Your task to perform on an android device: Clear the shopping cart on ebay.com. Image 0: 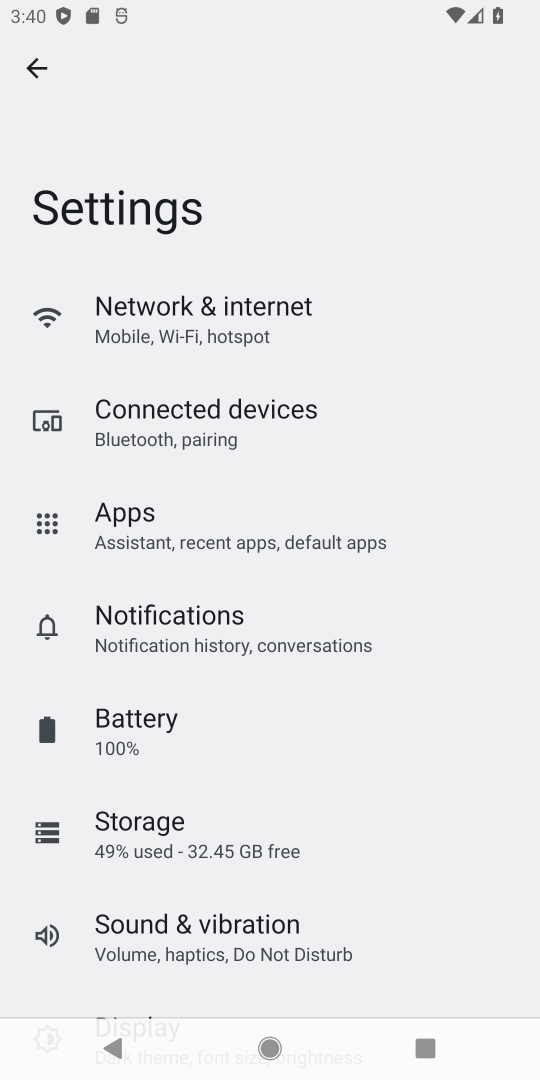
Step 0: press home button
Your task to perform on an android device: Clear the shopping cart on ebay.com. Image 1: 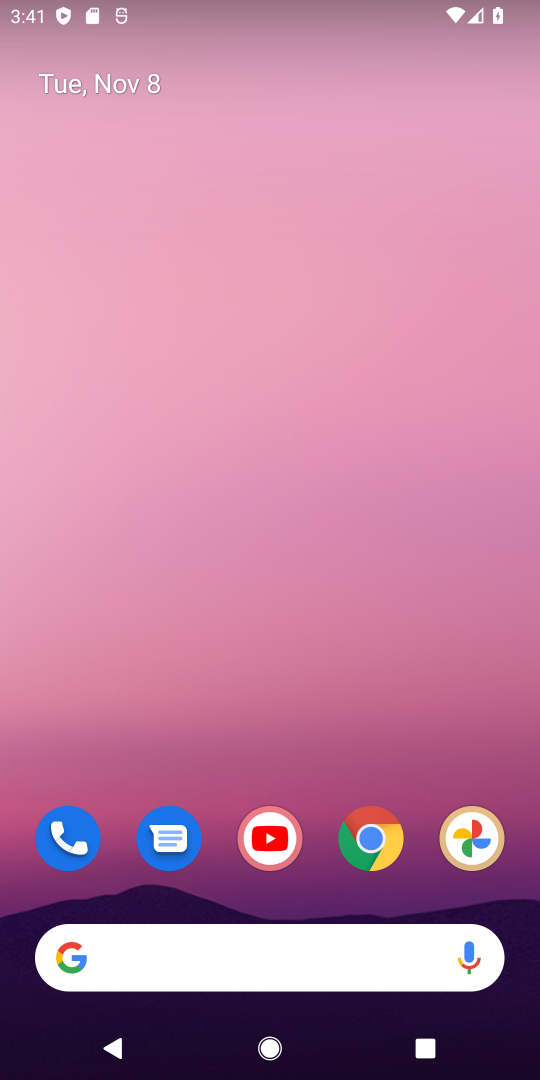
Step 1: drag from (341, 1034) to (331, 77)
Your task to perform on an android device: Clear the shopping cart on ebay.com. Image 2: 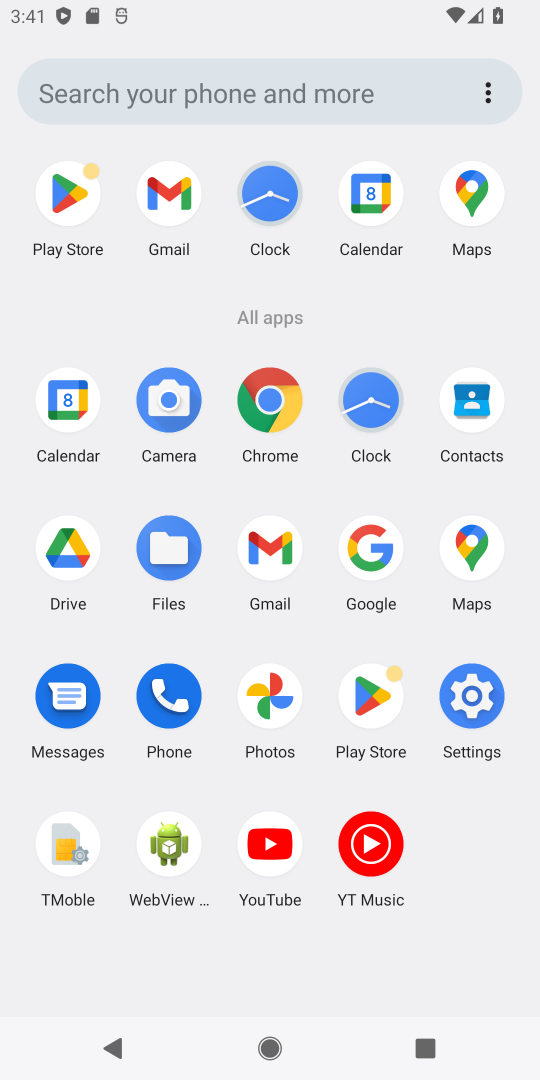
Step 2: click (269, 392)
Your task to perform on an android device: Clear the shopping cart on ebay.com. Image 3: 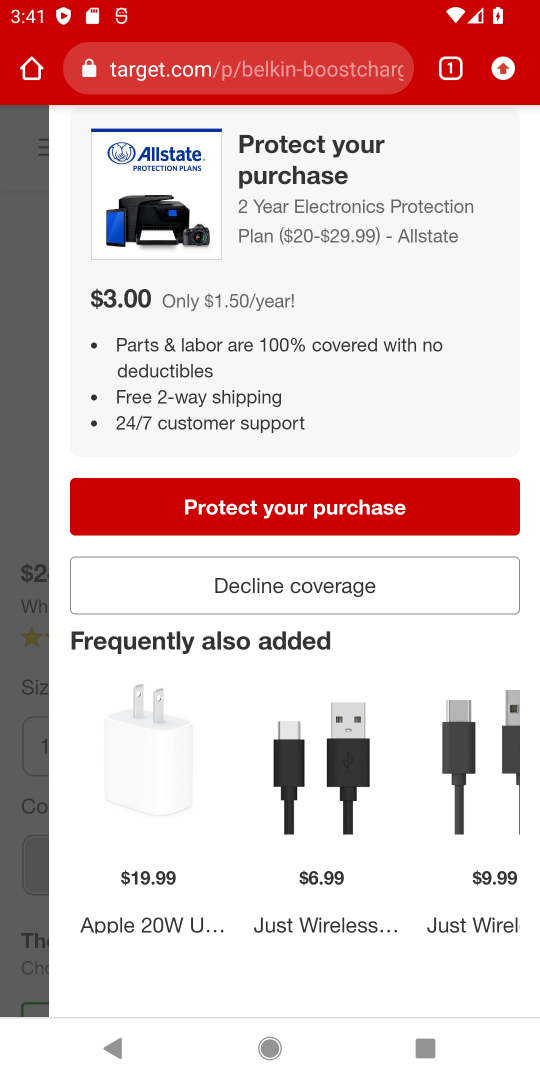
Step 3: click (32, 168)
Your task to perform on an android device: Clear the shopping cart on ebay.com. Image 4: 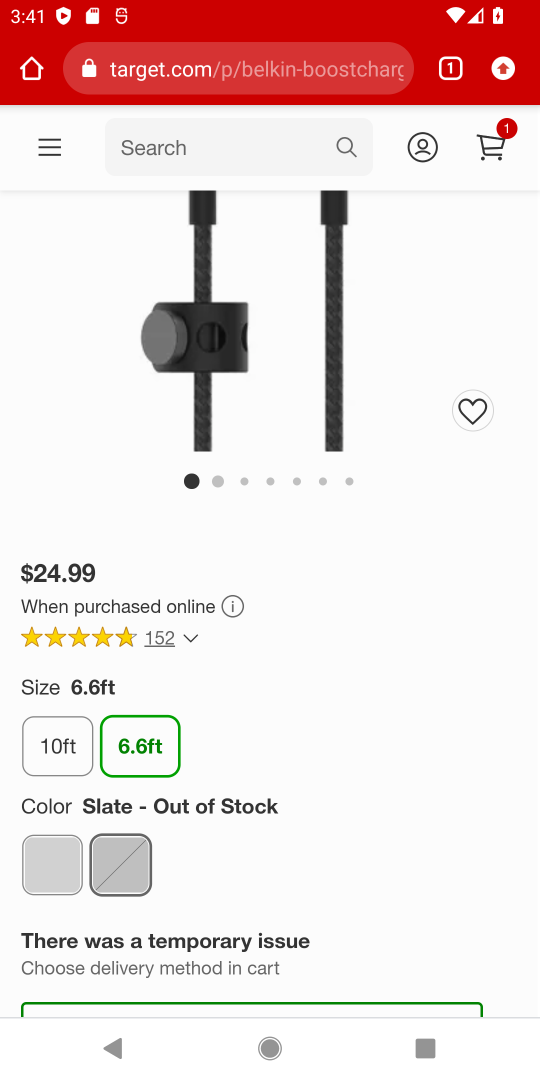
Step 4: click (182, 73)
Your task to perform on an android device: Clear the shopping cart on ebay.com. Image 5: 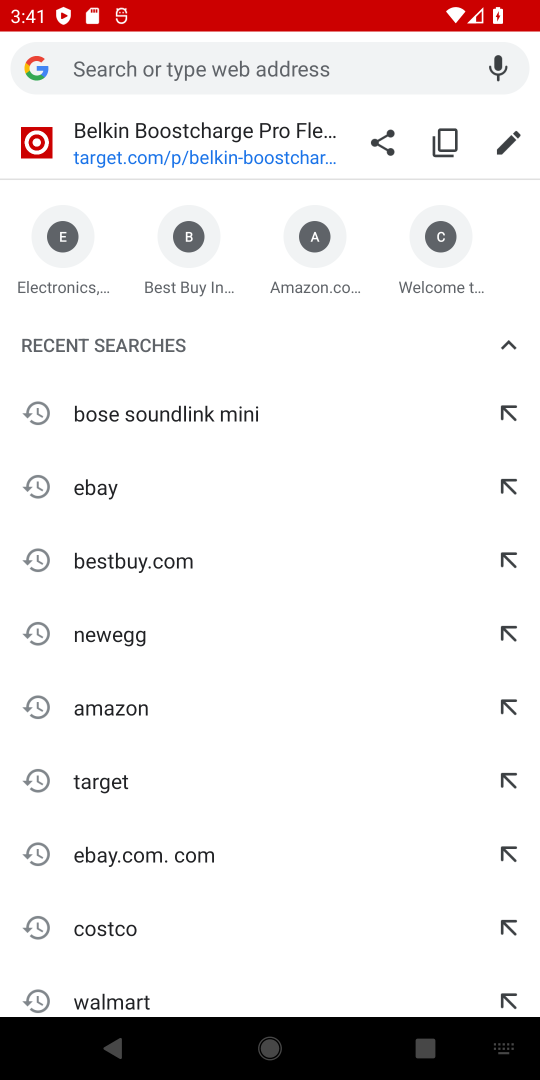
Step 5: type "ebay.com"
Your task to perform on an android device: Clear the shopping cart on ebay.com. Image 6: 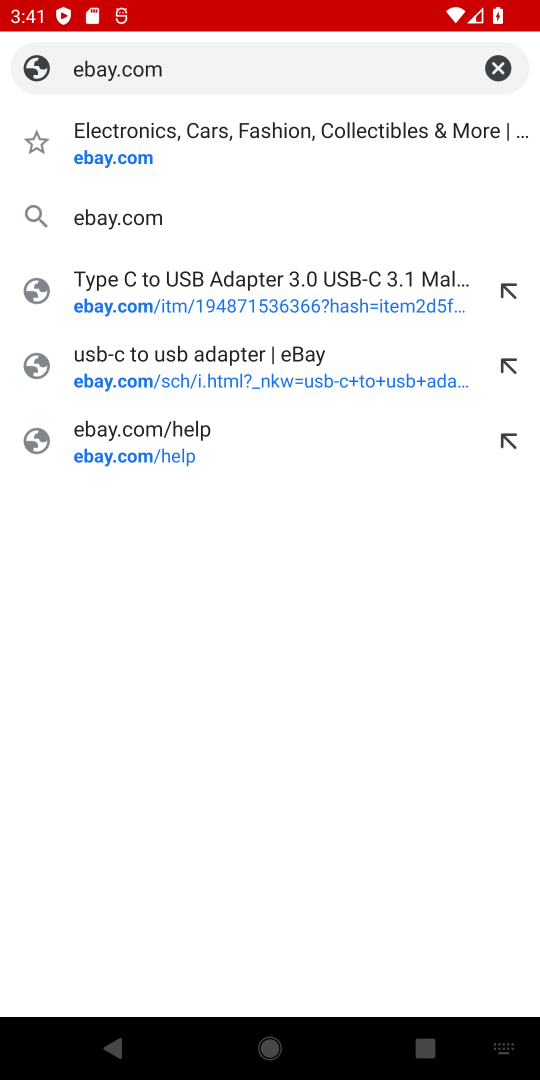
Step 6: click (134, 154)
Your task to perform on an android device: Clear the shopping cart on ebay.com. Image 7: 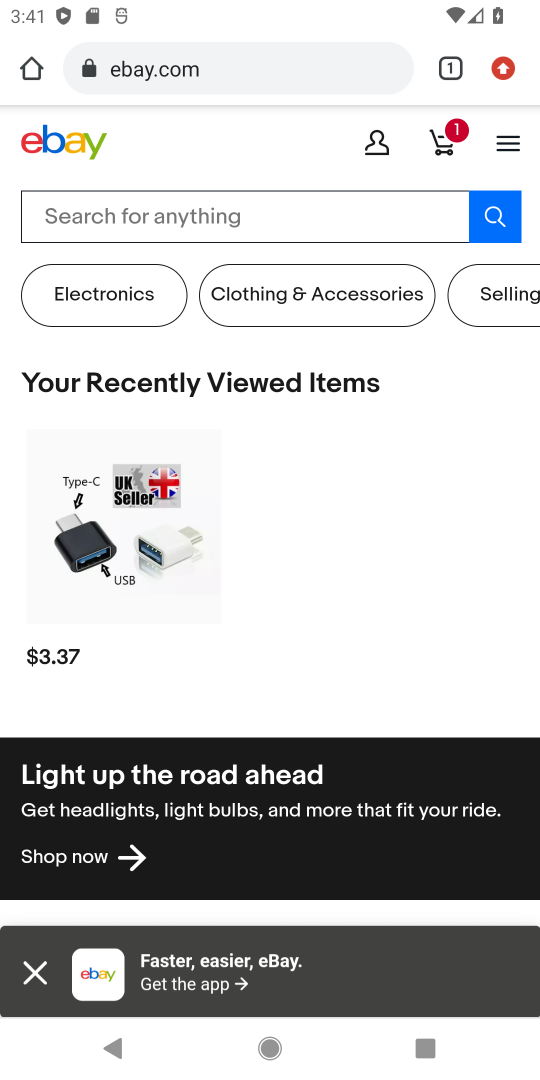
Step 7: drag from (257, 683) to (272, 161)
Your task to perform on an android device: Clear the shopping cart on ebay.com. Image 8: 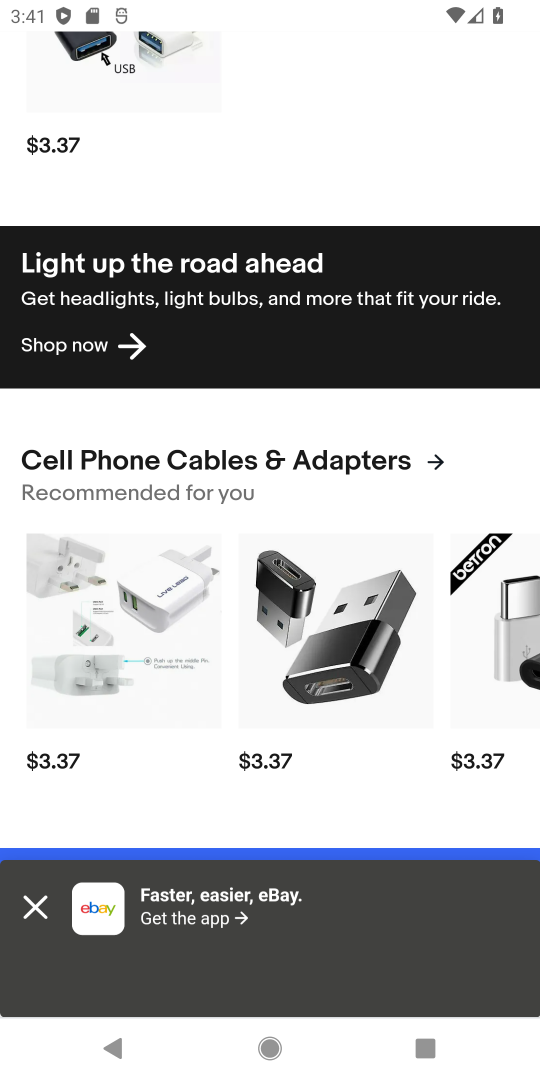
Step 8: drag from (395, 780) to (301, 314)
Your task to perform on an android device: Clear the shopping cart on ebay.com. Image 9: 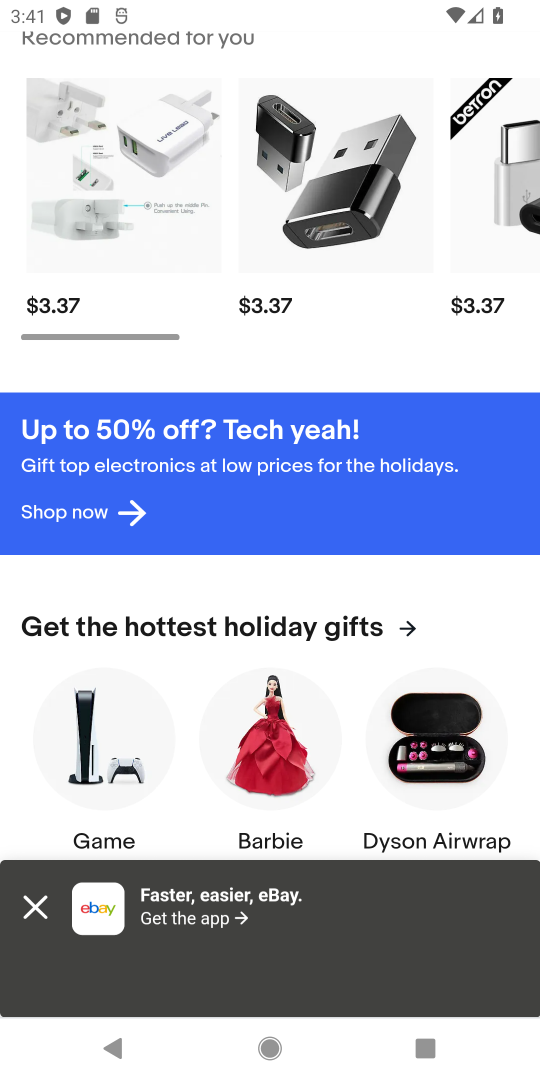
Step 9: drag from (254, 688) to (316, 111)
Your task to perform on an android device: Clear the shopping cart on ebay.com. Image 10: 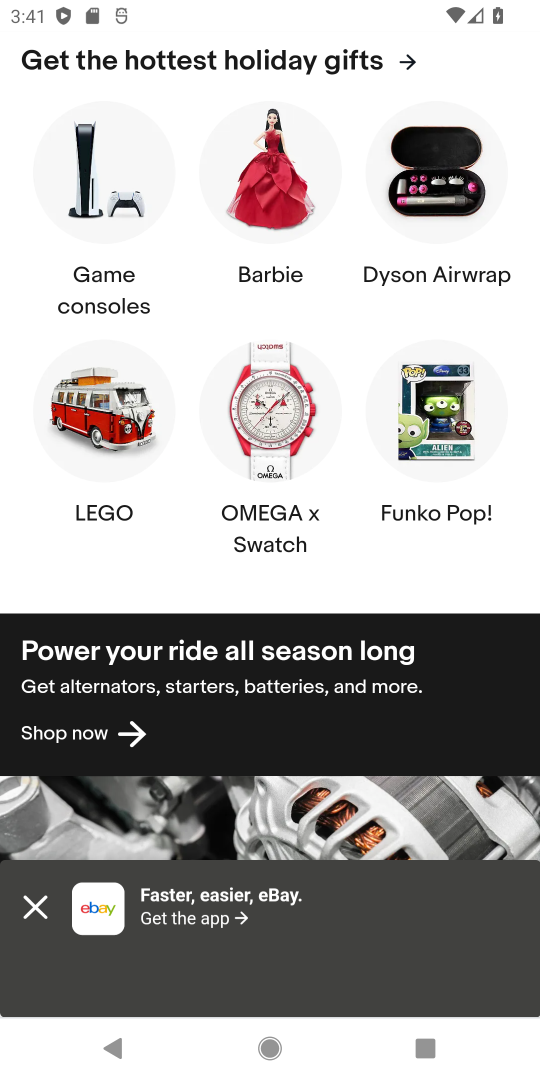
Step 10: drag from (182, 149) to (133, 661)
Your task to perform on an android device: Clear the shopping cart on ebay.com. Image 11: 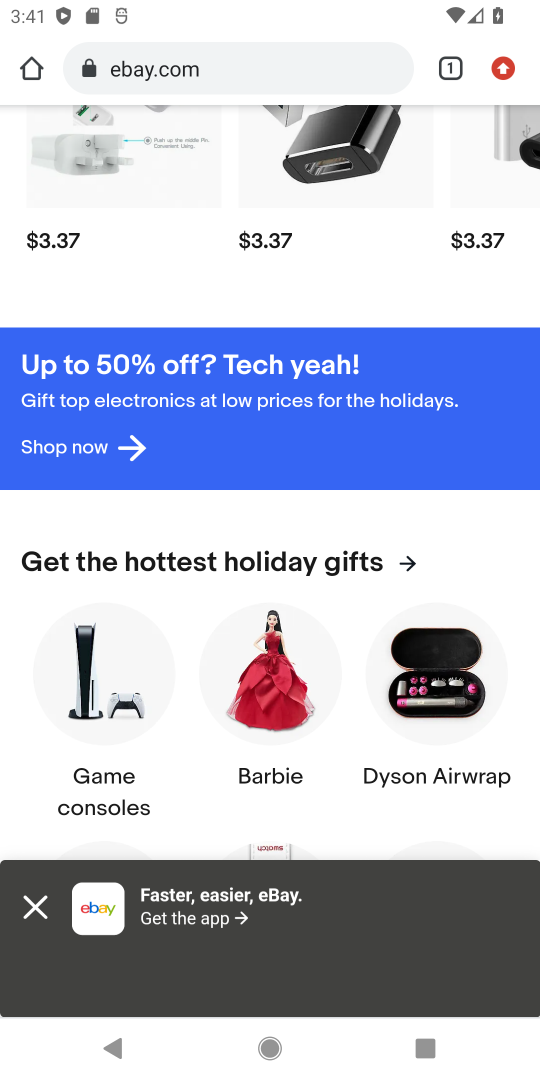
Step 11: drag from (156, 138) to (108, 710)
Your task to perform on an android device: Clear the shopping cart on ebay.com. Image 12: 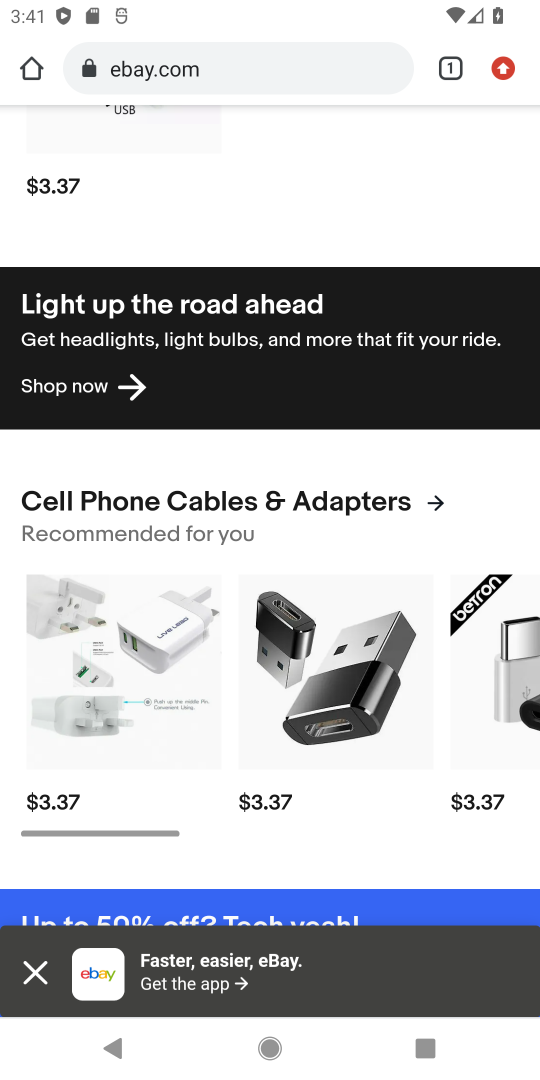
Step 12: drag from (220, 180) to (184, 680)
Your task to perform on an android device: Clear the shopping cart on ebay.com. Image 13: 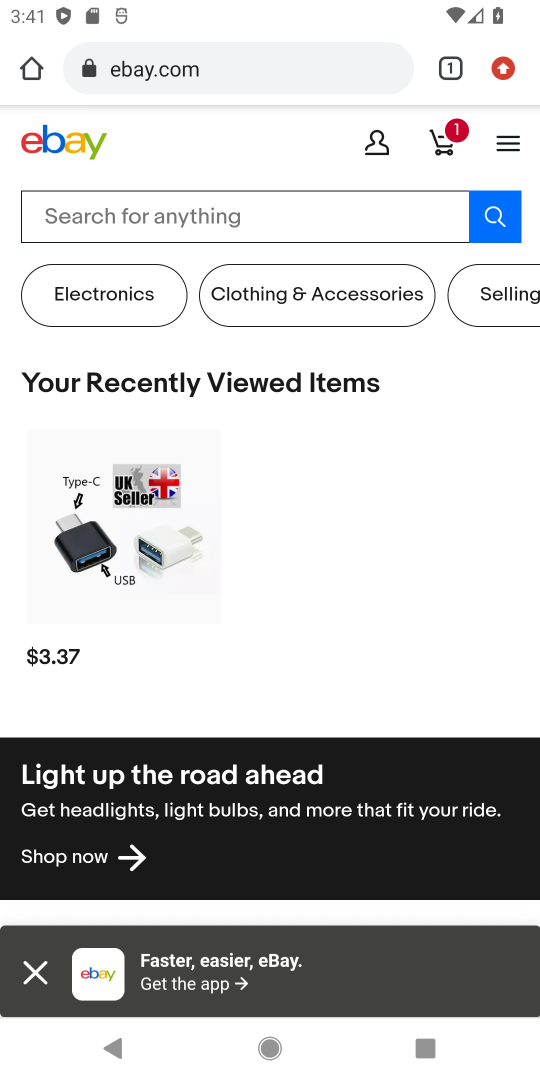
Step 13: click (227, 215)
Your task to perform on an android device: Clear the shopping cart on ebay.com. Image 14: 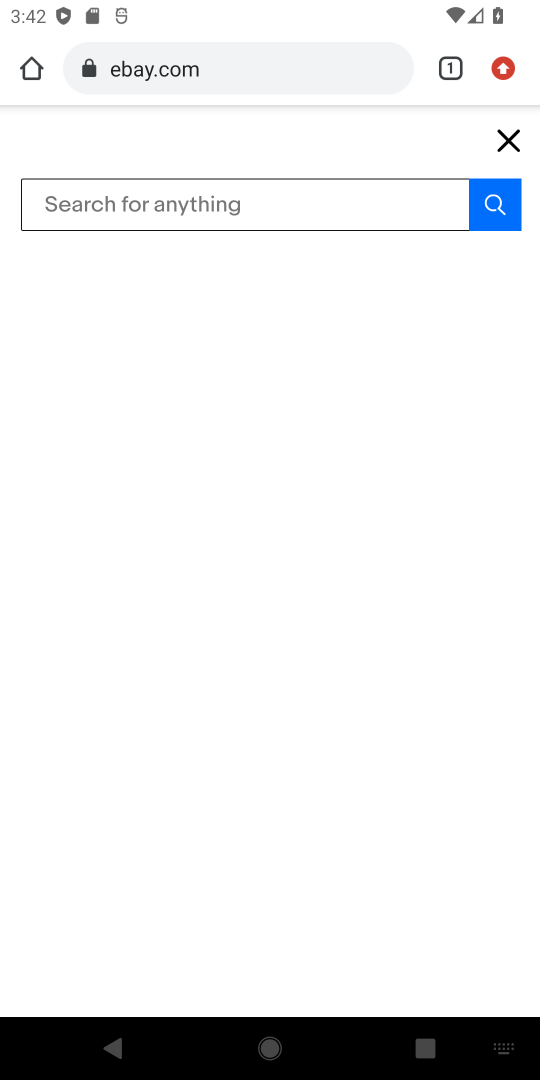
Step 14: press back button
Your task to perform on an android device: Clear the shopping cart on ebay.com. Image 15: 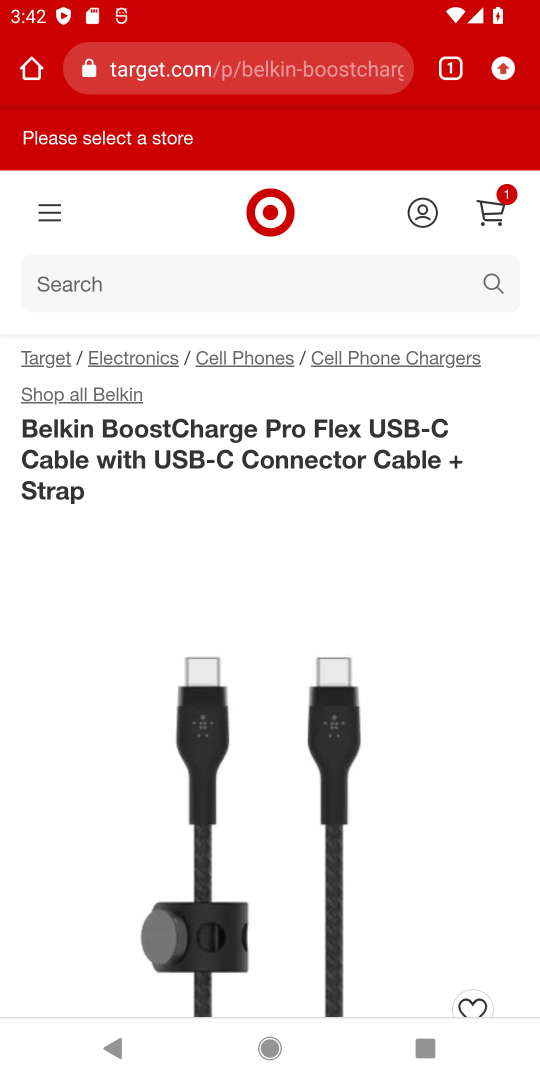
Step 15: click (489, 209)
Your task to perform on an android device: Clear the shopping cart on ebay.com. Image 16: 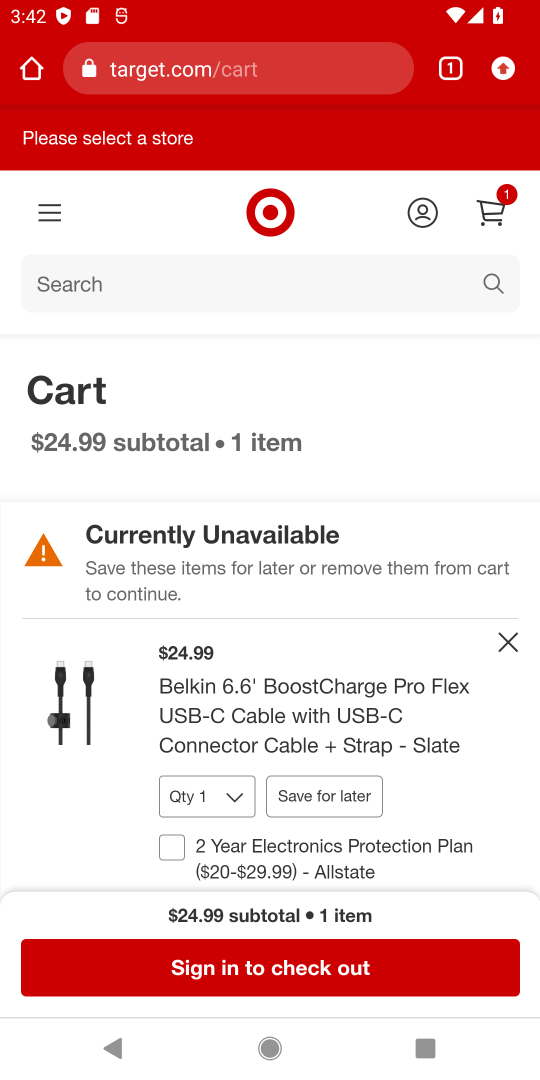
Step 16: drag from (488, 831) to (491, 407)
Your task to perform on an android device: Clear the shopping cart on ebay.com. Image 17: 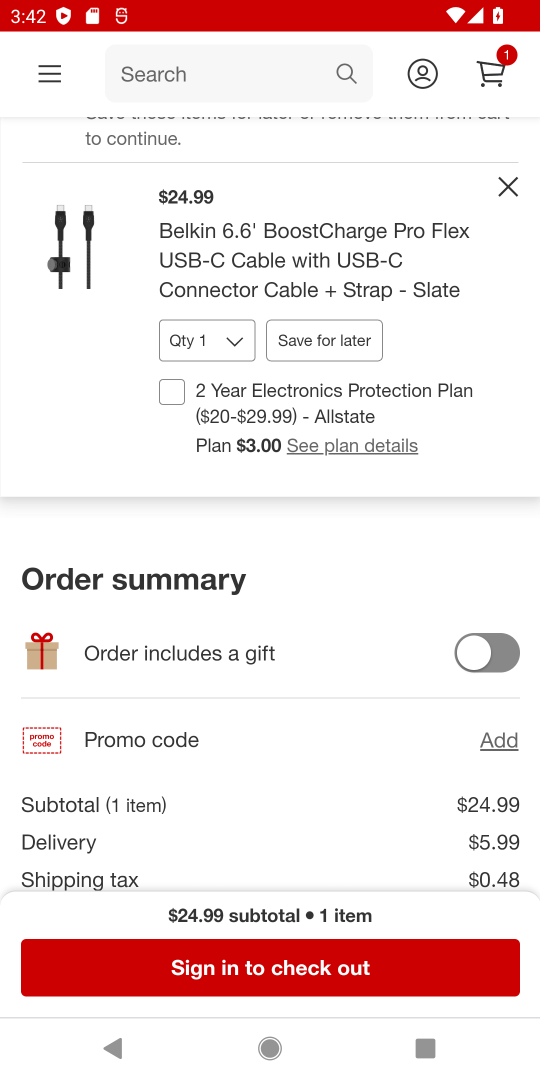
Step 17: click (509, 181)
Your task to perform on an android device: Clear the shopping cart on ebay.com. Image 18: 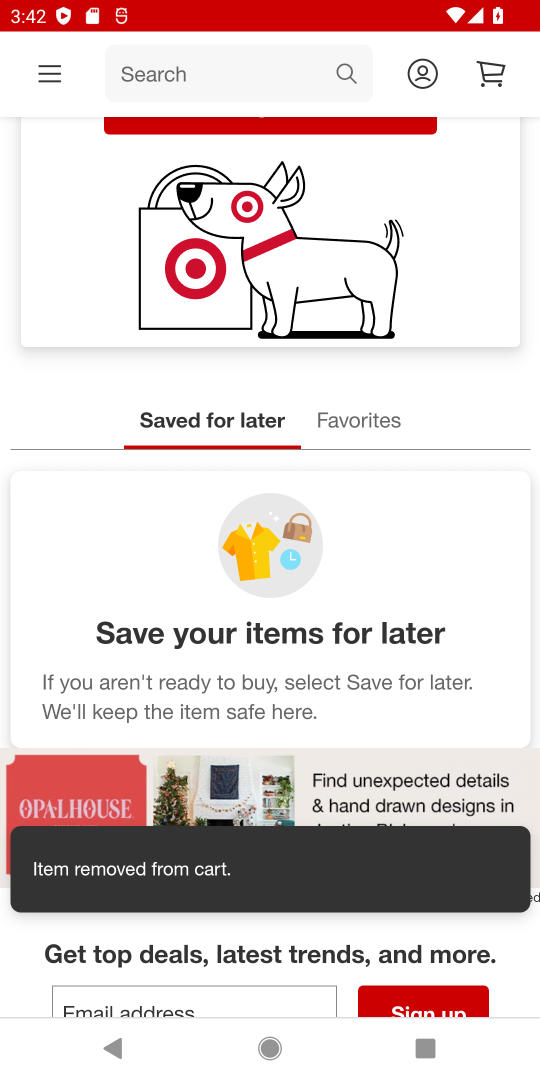
Step 18: task complete